Your task to perform on an android device: Go to eBay Image 0: 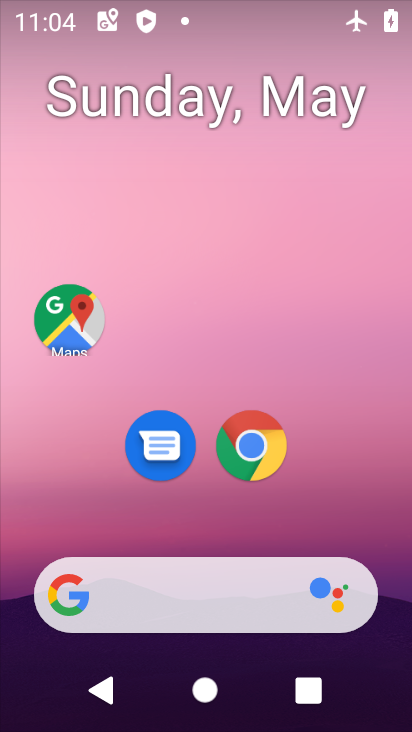
Step 0: click (249, 445)
Your task to perform on an android device: Go to eBay Image 1: 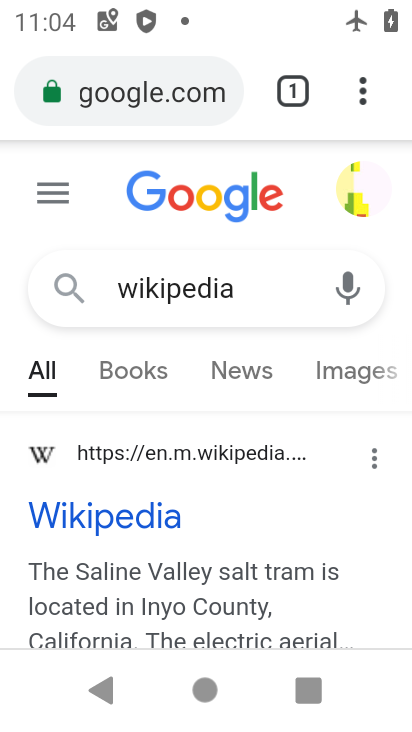
Step 1: click (124, 89)
Your task to perform on an android device: Go to eBay Image 2: 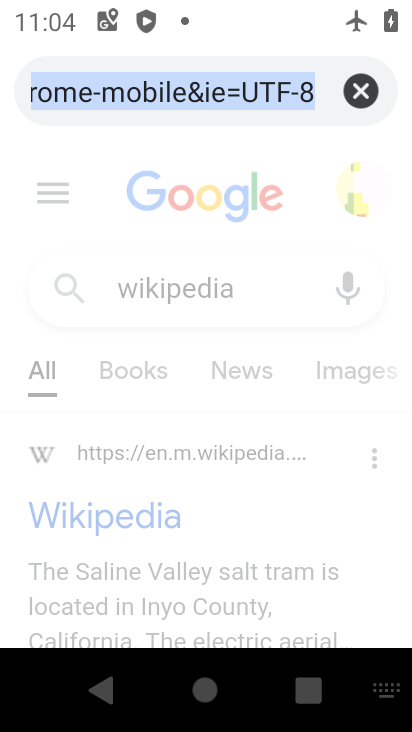
Step 2: type "eBay"
Your task to perform on an android device: Go to eBay Image 3: 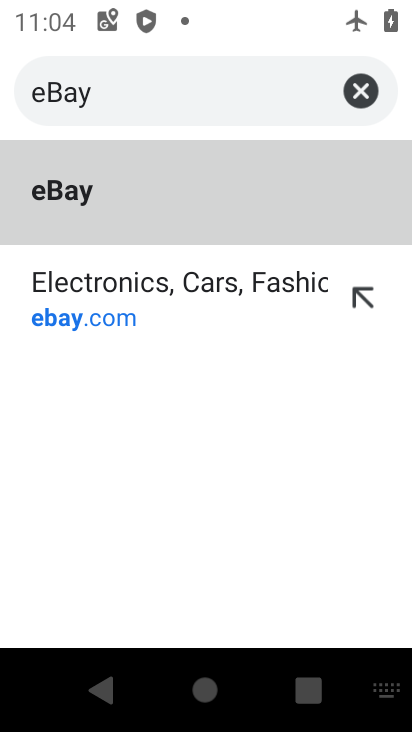
Step 3: click (182, 176)
Your task to perform on an android device: Go to eBay Image 4: 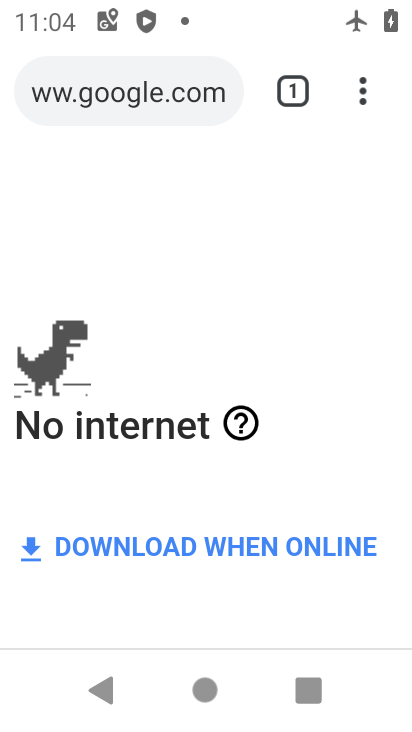
Step 4: task complete